Your task to perform on an android device: snooze an email in the gmail app Image 0: 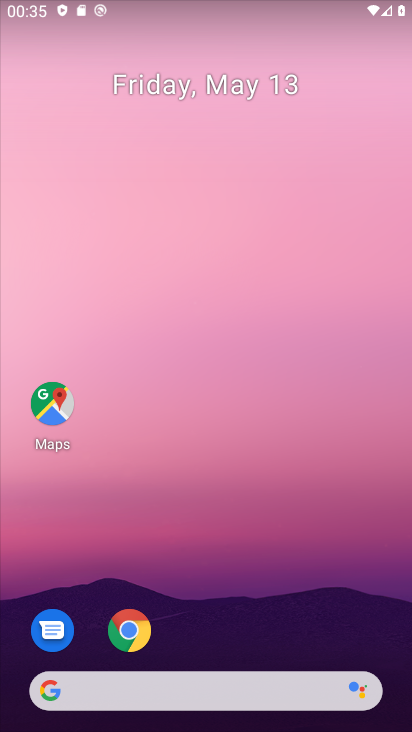
Step 0: drag from (229, 695) to (288, 83)
Your task to perform on an android device: snooze an email in the gmail app Image 1: 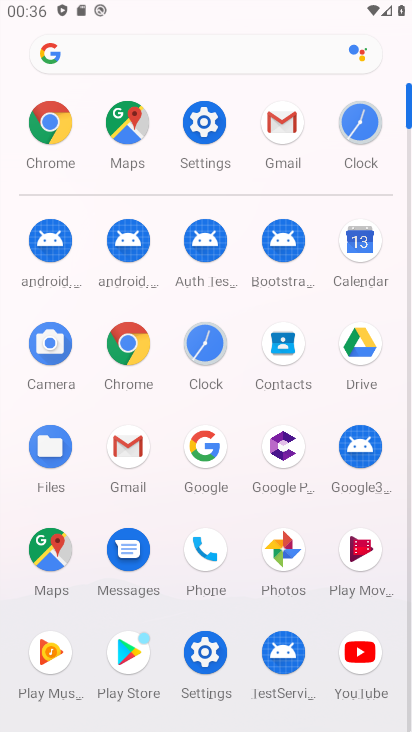
Step 1: click (111, 464)
Your task to perform on an android device: snooze an email in the gmail app Image 2: 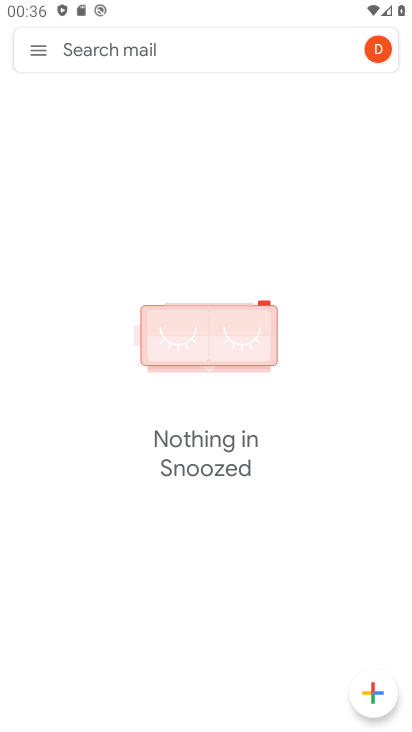
Step 2: click (46, 39)
Your task to perform on an android device: snooze an email in the gmail app Image 3: 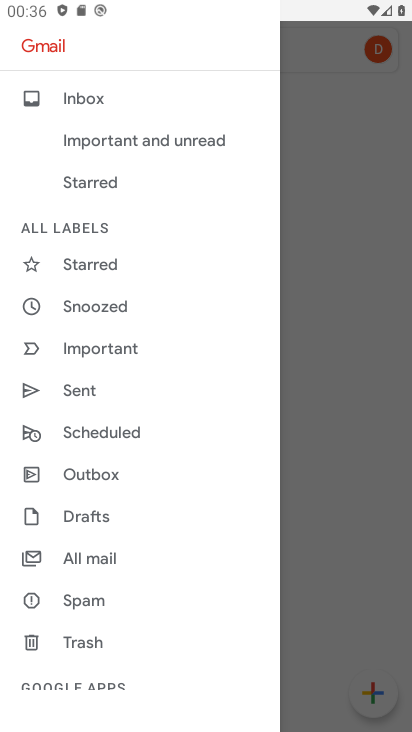
Step 3: click (99, 299)
Your task to perform on an android device: snooze an email in the gmail app Image 4: 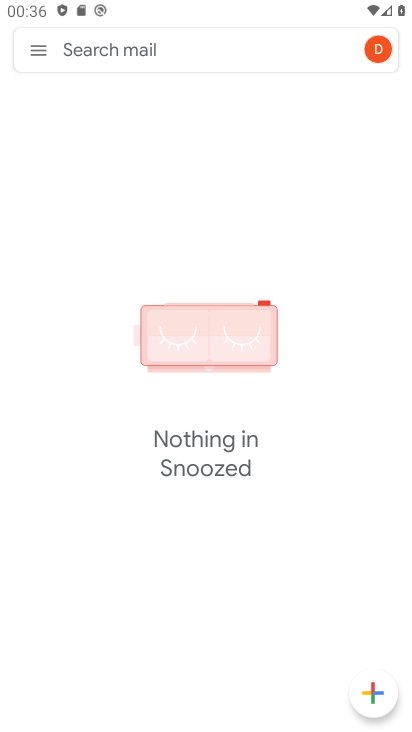
Step 4: task complete